Your task to perform on an android device: toggle location history Image 0: 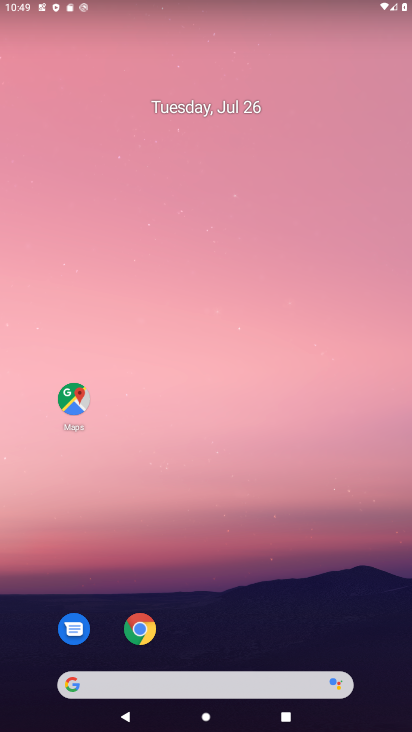
Step 0: drag from (206, 333) to (208, 3)
Your task to perform on an android device: toggle location history Image 1: 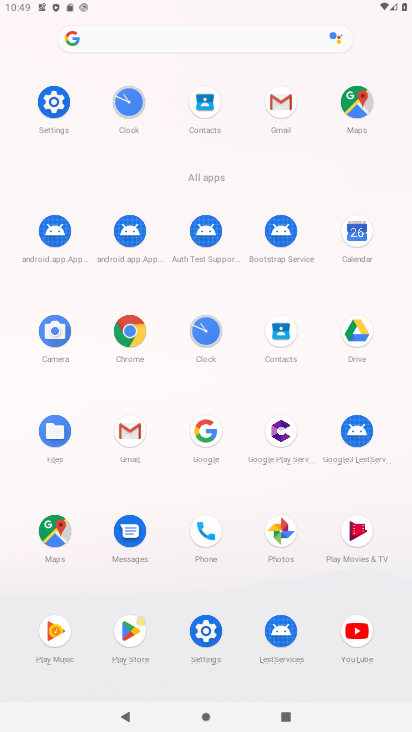
Step 1: click (47, 94)
Your task to perform on an android device: toggle location history Image 2: 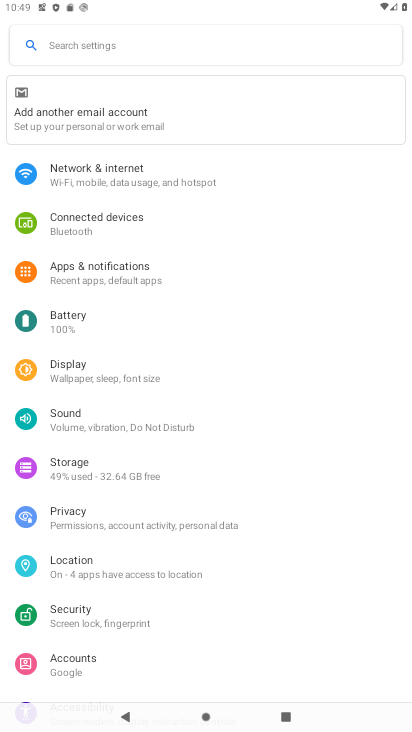
Step 2: click (64, 571)
Your task to perform on an android device: toggle location history Image 3: 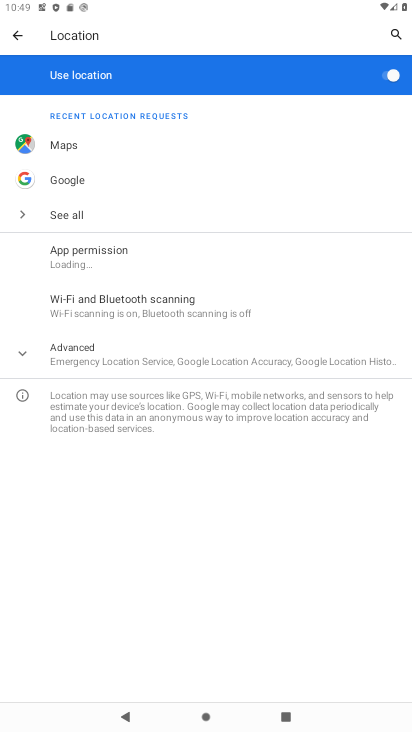
Step 3: click (70, 353)
Your task to perform on an android device: toggle location history Image 4: 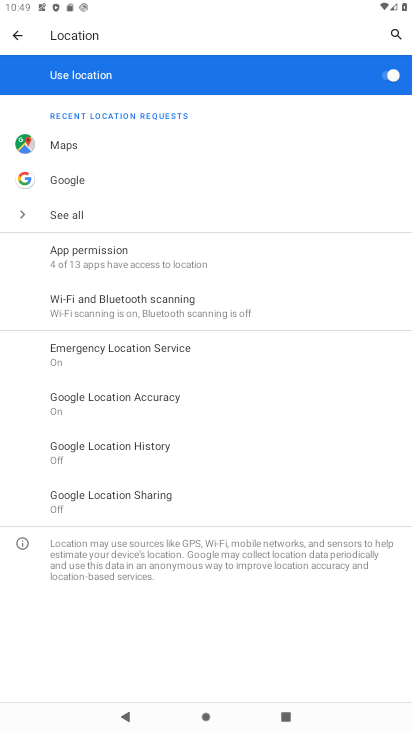
Step 4: click (74, 446)
Your task to perform on an android device: toggle location history Image 5: 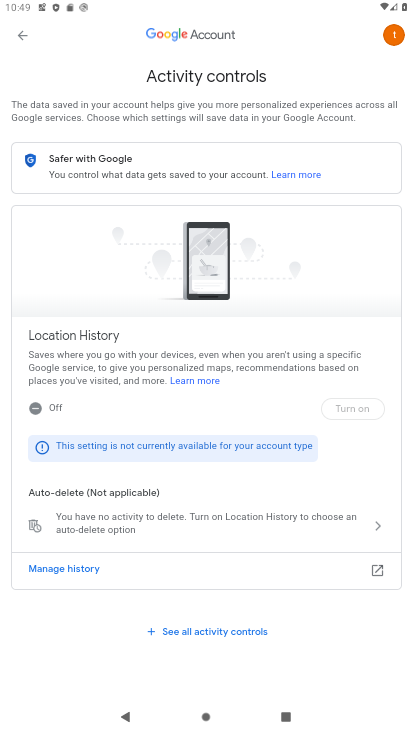
Step 5: task complete